Your task to perform on an android device: What's the weather? Image 0: 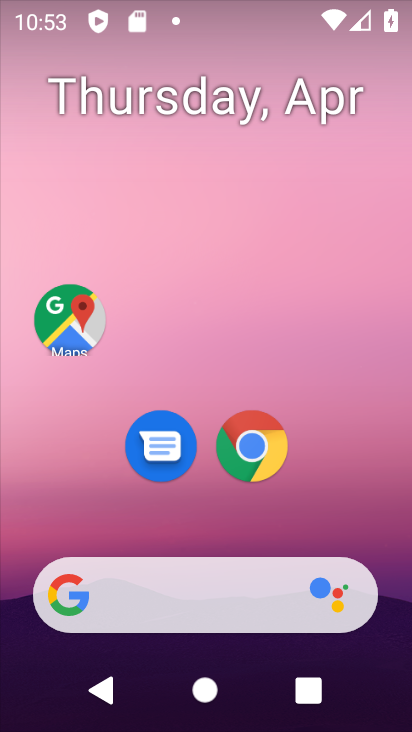
Step 0: drag from (194, 528) to (141, 0)
Your task to perform on an android device: What's the weather? Image 1: 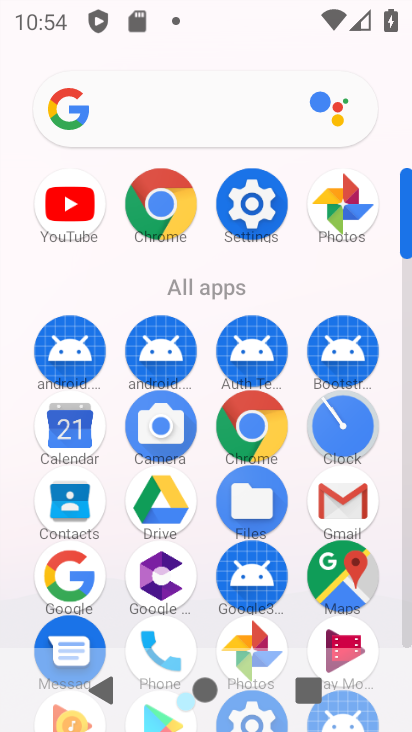
Step 1: click (154, 198)
Your task to perform on an android device: What's the weather? Image 2: 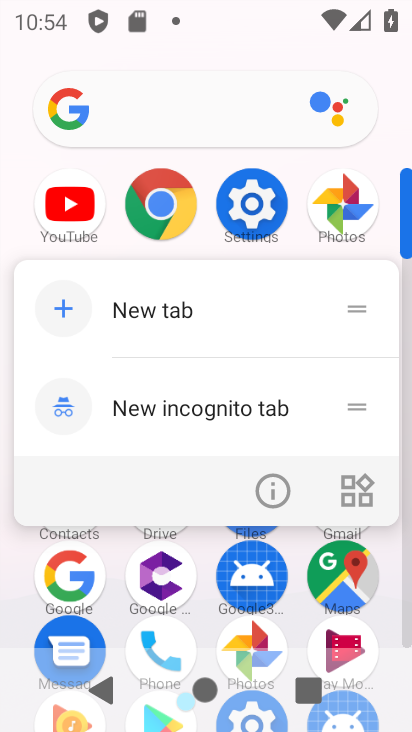
Step 2: click (267, 477)
Your task to perform on an android device: What's the weather? Image 3: 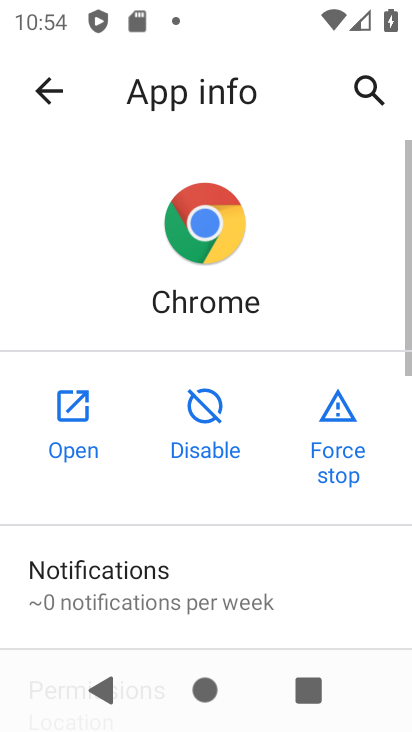
Step 3: click (78, 401)
Your task to perform on an android device: What's the weather? Image 4: 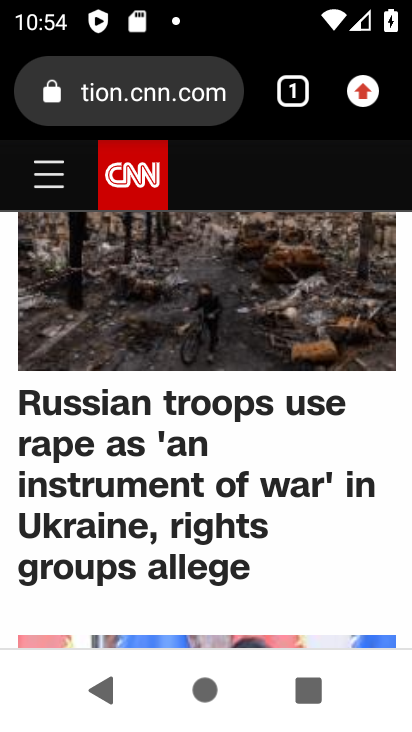
Step 4: click (141, 100)
Your task to perform on an android device: What's the weather? Image 5: 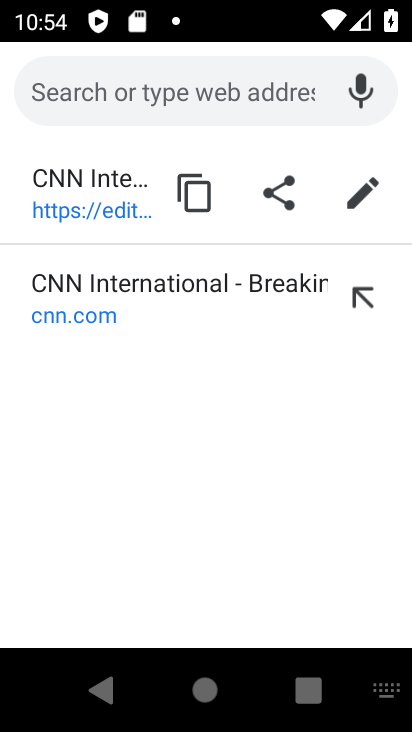
Step 5: type "weather"
Your task to perform on an android device: What's the weather? Image 6: 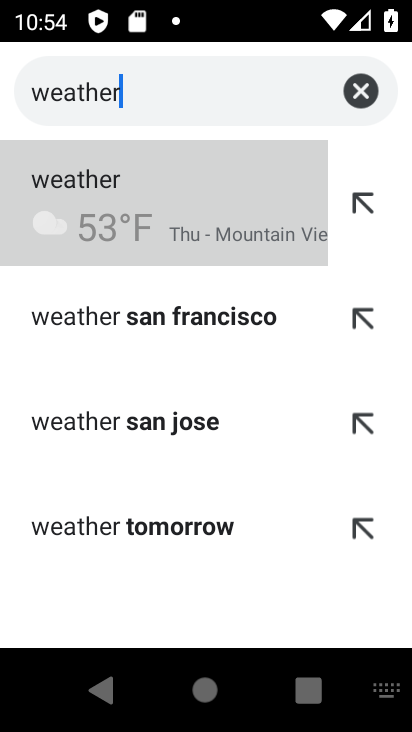
Step 6: click (82, 182)
Your task to perform on an android device: What's the weather? Image 7: 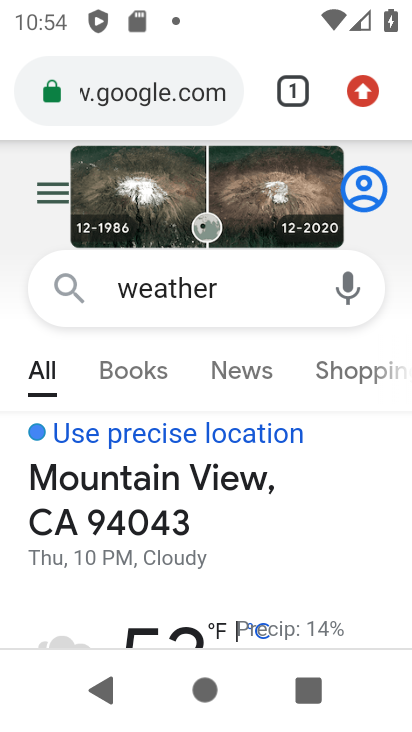
Step 7: task complete